Your task to perform on an android device: open a bookmark in the chrome app Image 0: 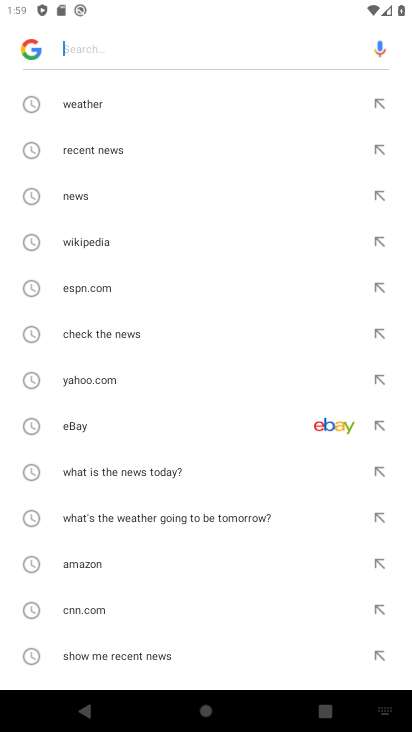
Step 0: press home button
Your task to perform on an android device: open a bookmark in the chrome app Image 1: 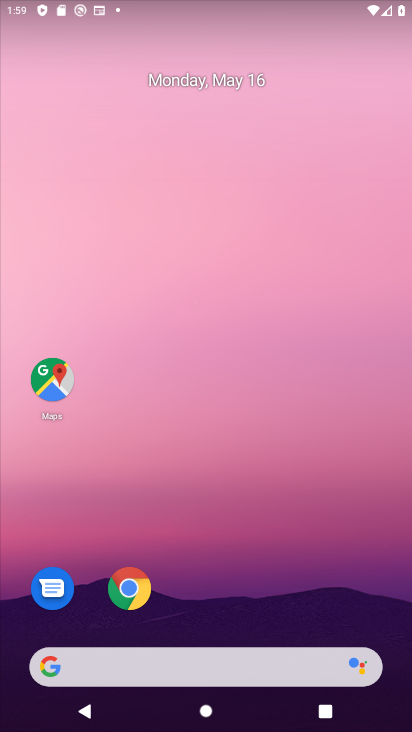
Step 1: click (128, 594)
Your task to perform on an android device: open a bookmark in the chrome app Image 2: 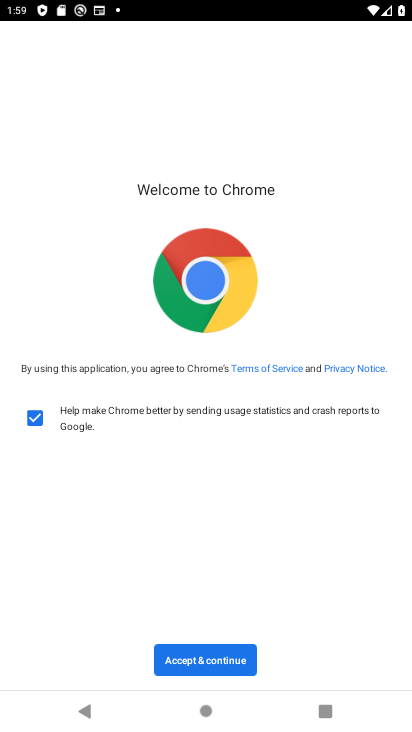
Step 2: click (197, 661)
Your task to perform on an android device: open a bookmark in the chrome app Image 3: 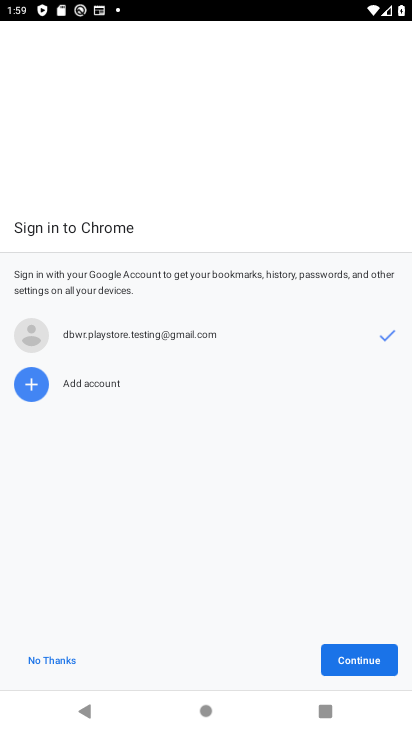
Step 3: click (358, 653)
Your task to perform on an android device: open a bookmark in the chrome app Image 4: 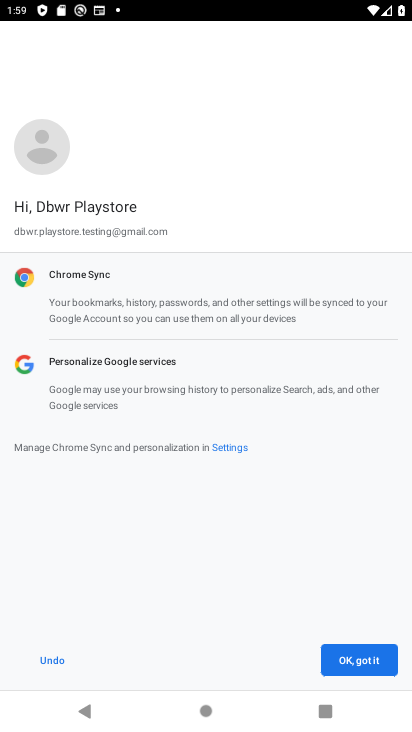
Step 4: click (357, 657)
Your task to perform on an android device: open a bookmark in the chrome app Image 5: 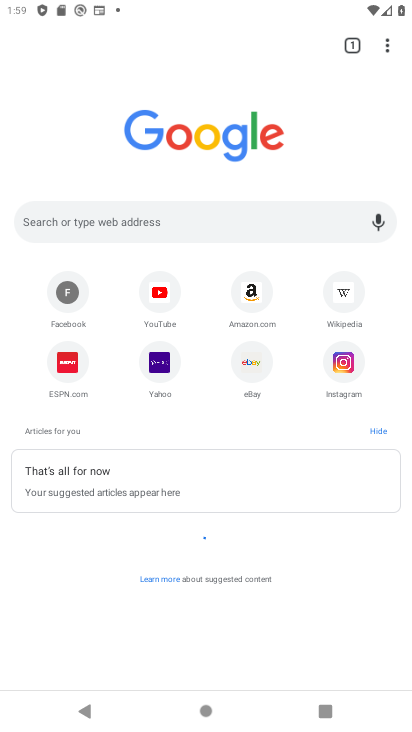
Step 5: click (388, 46)
Your task to perform on an android device: open a bookmark in the chrome app Image 6: 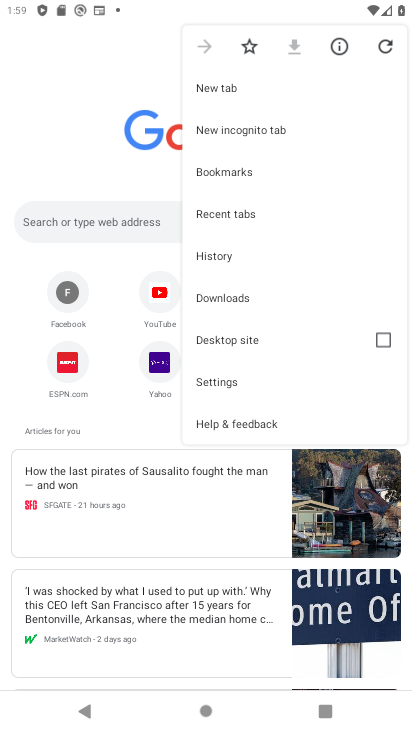
Step 6: click (222, 168)
Your task to perform on an android device: open a bookmark in the chrome app Image 7: 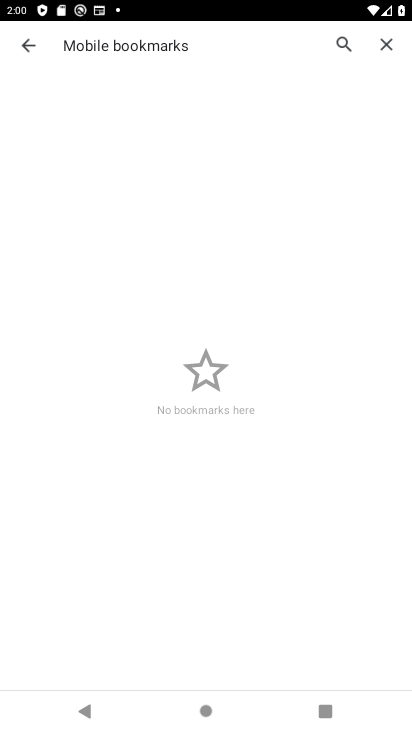
Step 7: task complete